Your task to perform on an android device: toggle airplane mode Image 0: 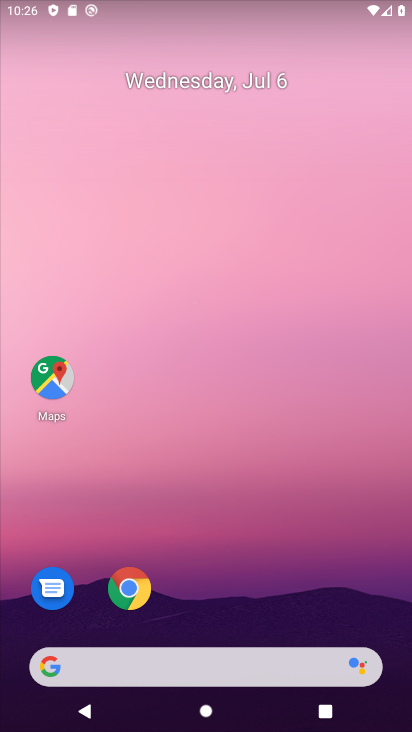
Step 0: drag from (205, 651) to (333, 83)
Your task to perform on an android device: toggle airplane mode Image 1: 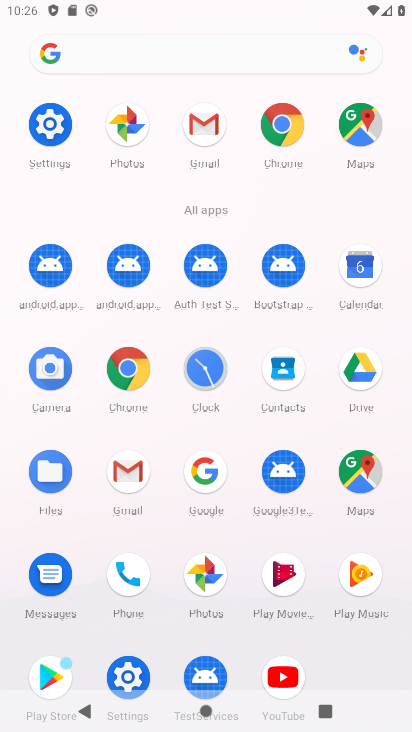
Step 1: click (42, 123)
Your task to perform on an android device: toggle airplane mode Image 2: 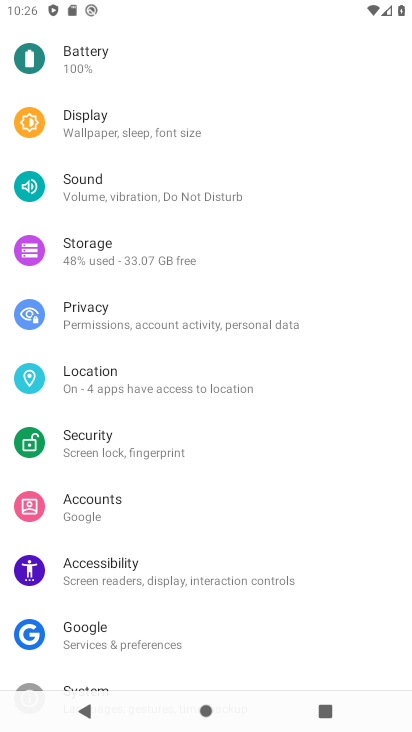
Step 2: drag from (262, 81) to (279, 612)
Your task to perform on an android device: toggle airplane mode Image 3: 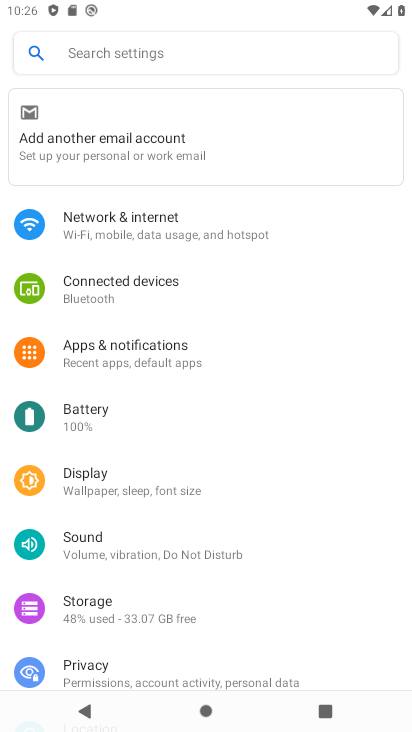
Step 3: click (140, 228)
Your task to perform on an android device: toggle airplane mode Image 4: 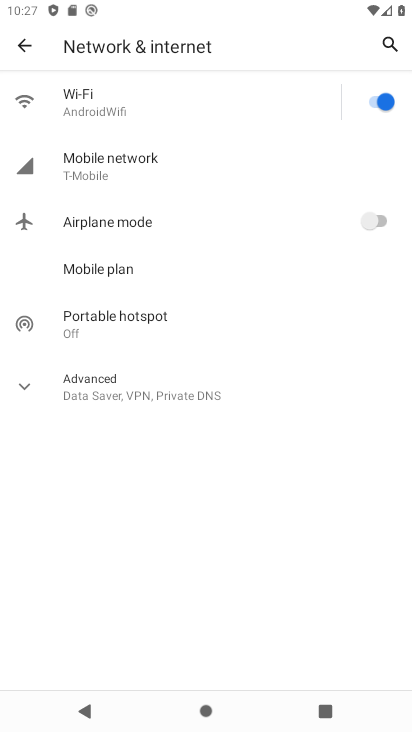
Step 4: click (382, 221)
Your task to perform on an android device: toggle airplane mode Image 5: 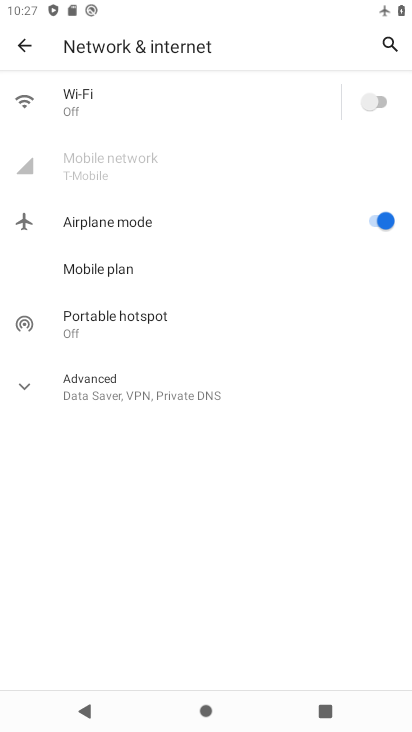
Step 5: task complete